Your task to perform on an android device: turn off wifi Image 0: 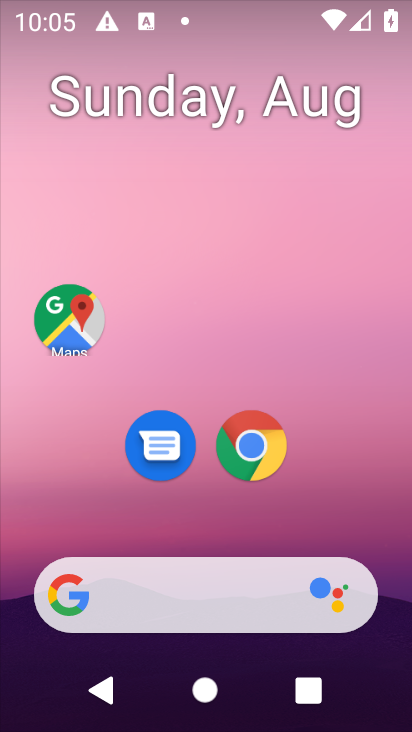
Step 0: press home button
Your task to perform on an android device: turn off wifi Image 1: 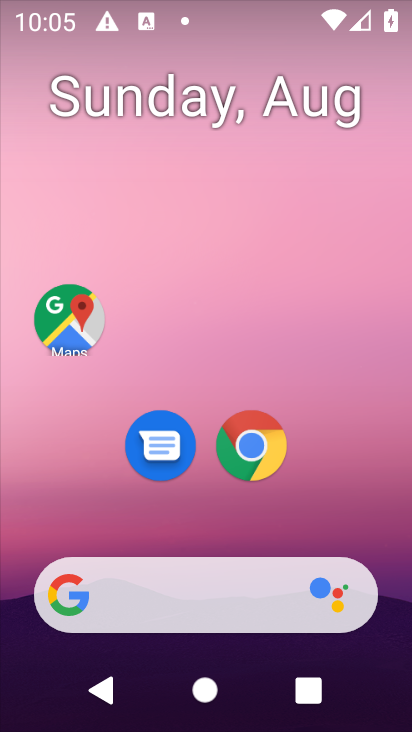
Step 1: drag from (198, 524) to (206, 87)
Your task to perform on an android device: turn off wifi Image 2: 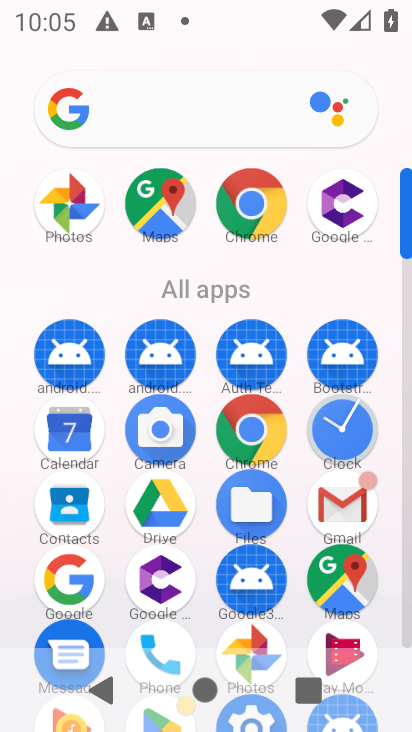
Step 2: drag from (206, 547) to (239, 189)
Your task to perform on an android device: turn off wifi Image 3: 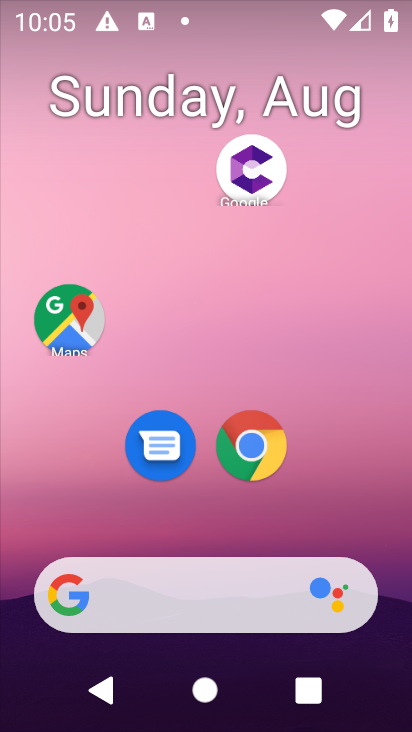
Step 3: drag from (346, 507) to (356, 68)
Your task to perform on an android device: turn off wifi Image 4: 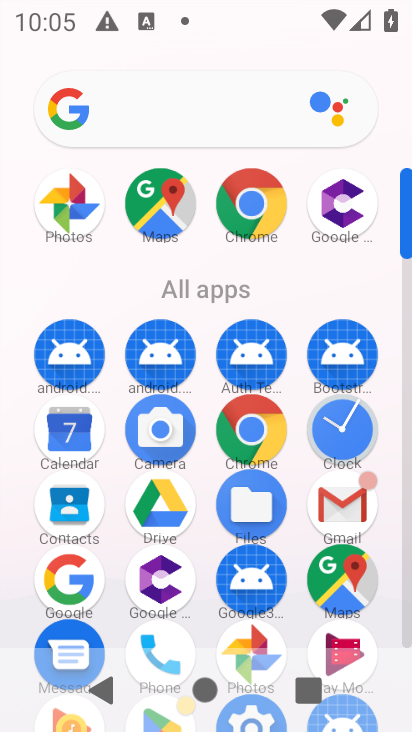
Step 4: drag from (380, 545) to (375, 85)
Your task to perform on an android device: turn off wifi Image 5: 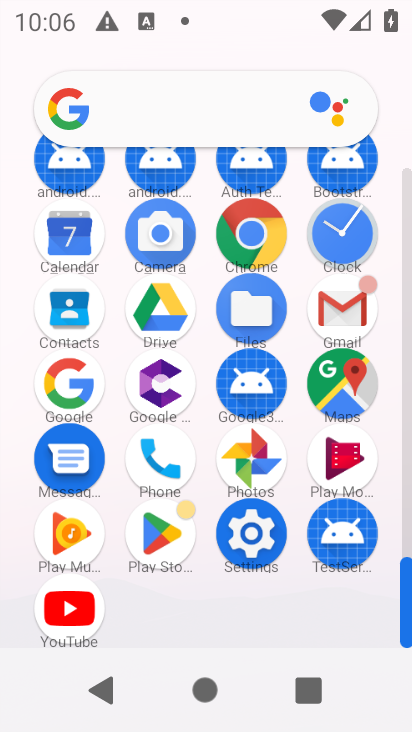
Step 5: click (250, 530)
Your task to perform on an android device: turn off wifi Image 6: 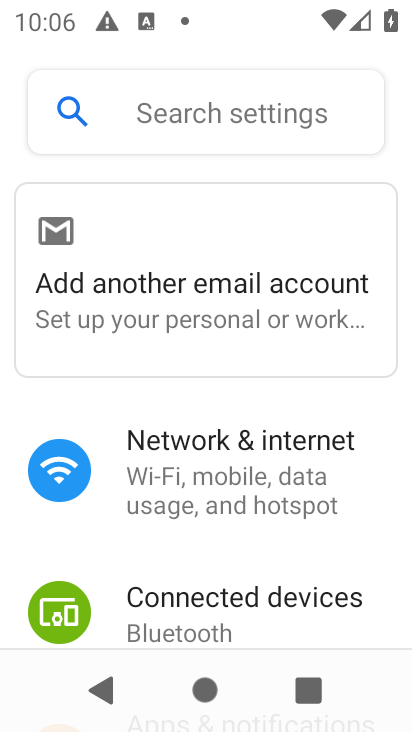
Step 6: click (216, 460)
Your task to perform on an android device: turn off wifi Image 7: 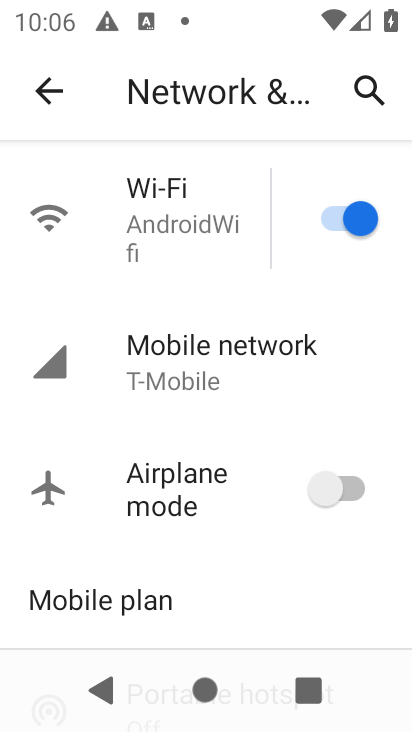
Step 7: click (339, 220)
Your task to perform on an android device: turn off wifi Image 8: 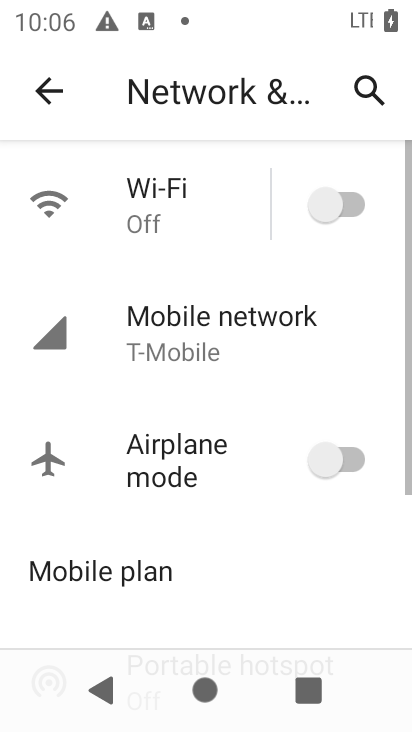
Step 8: task complete